Your task to perform on an android device: turn on airplane mode Image 0: 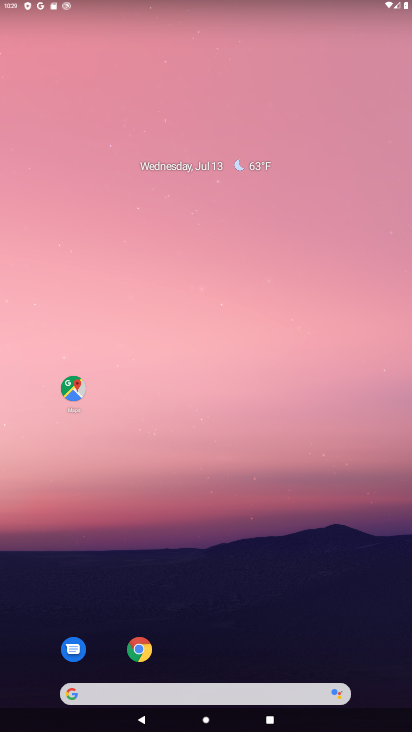
Step 0: drag from (207, 574) to (199, 48)
Your task to perform on an android device: turn on airplane mode Image 1: 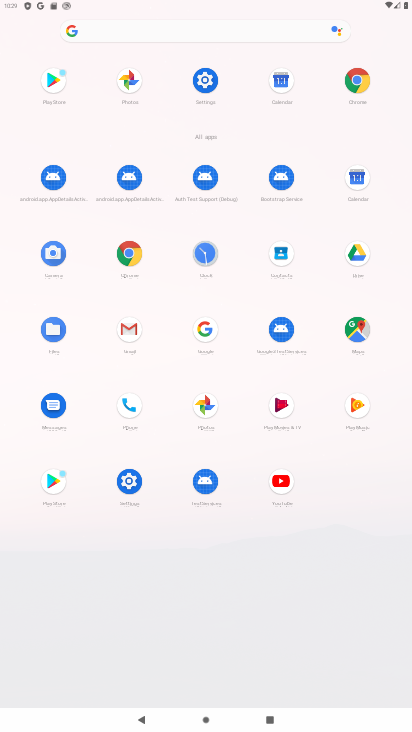
Step 1: click (207, 65)
Your task to perform on an android device: turn on airplane mode Image 2: 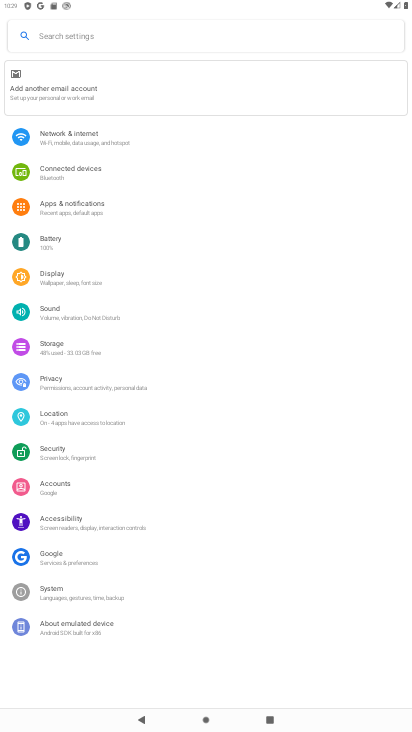
Step 2: drag from (127, 133) to (130, 184)
Your task to perform on an android device: turn on airplane mode Image 3: 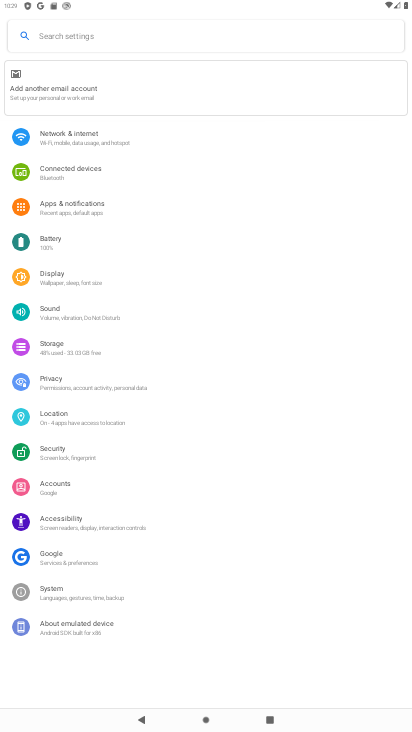
Step 3: click (70, 126)
Your task to perform on an android device: turn on airplane mode Image 4: 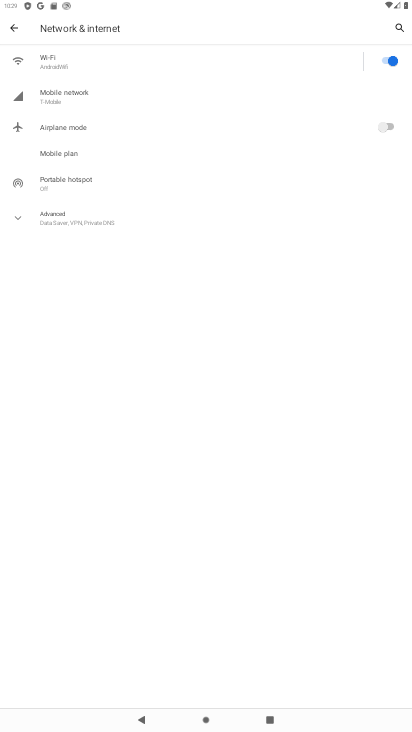
Step 4: click (387, 124)
Your task to perform on an android device: turn on airplane mode Image 5: 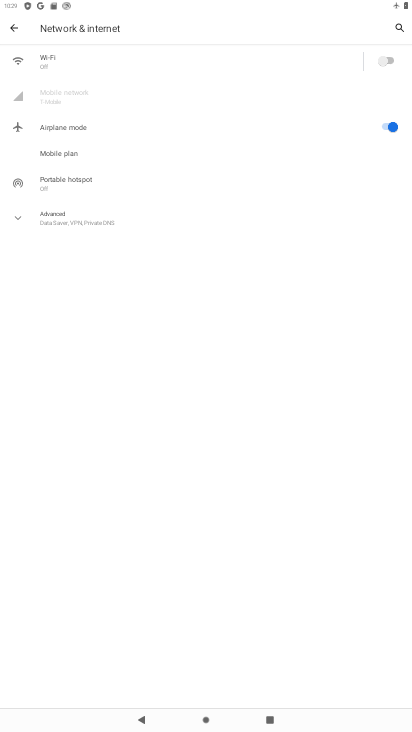
Step 5: task complete